Your task to perform on an android device: Open eBay Image 0: 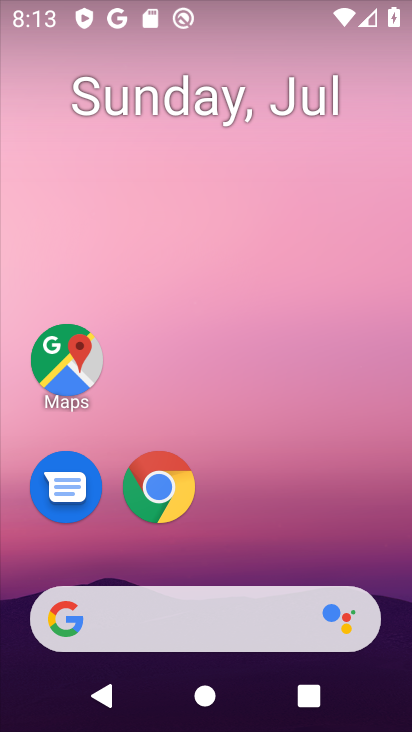
Step 0: click (176, 491)
Your task to perform on an android device: Open eBay Image 1: 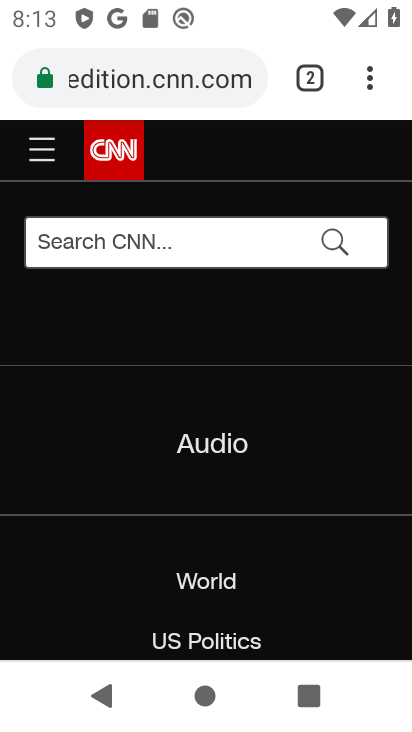
Step 1: click (299, 79)
Your task to perform on an android device: Open eBay Image 2: 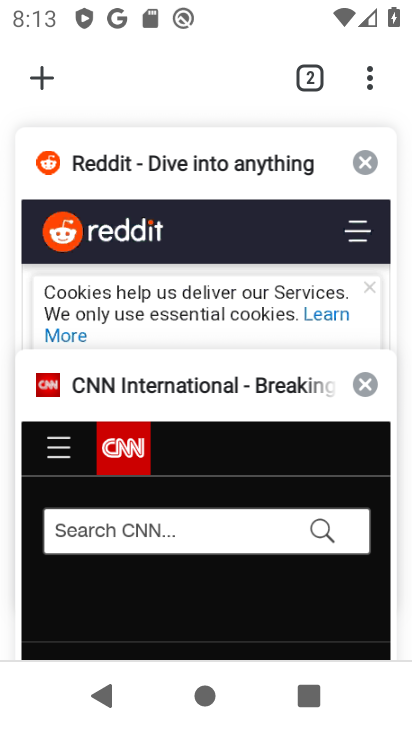
Step 2: click (51, 80)
Your task to perform on an android device: Open eBay Image 3: 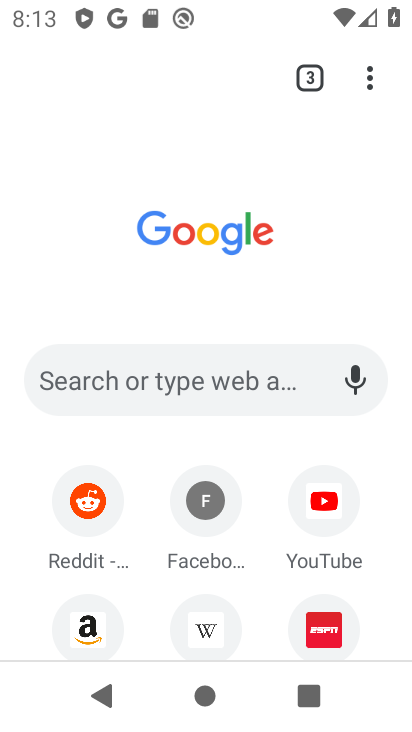
Step 3: click (211, 374)
Your task to perform on an android device: Open eBay Image 4: 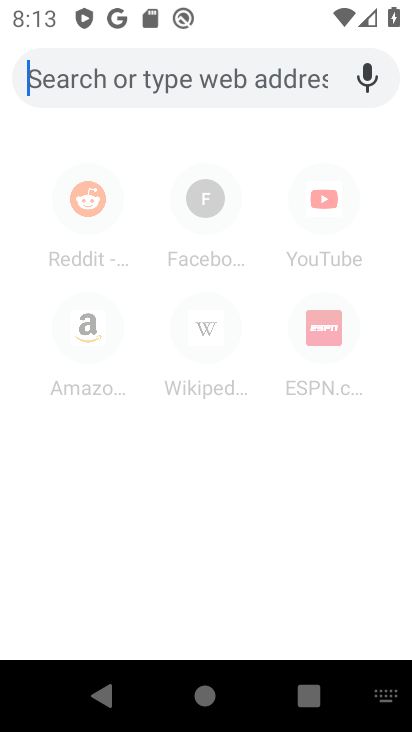
Step 4: type "ebay"
Your task to perform on an android device: Open eBay Image 5: 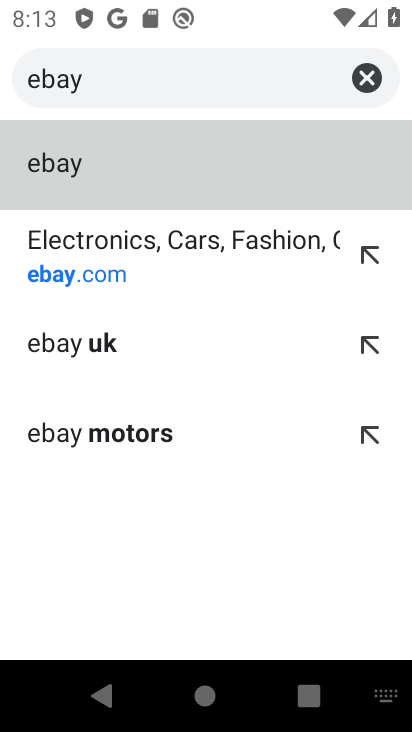
Step 5: click (193, 256)
Your task to perform on an android device: Open eBay Image 6: 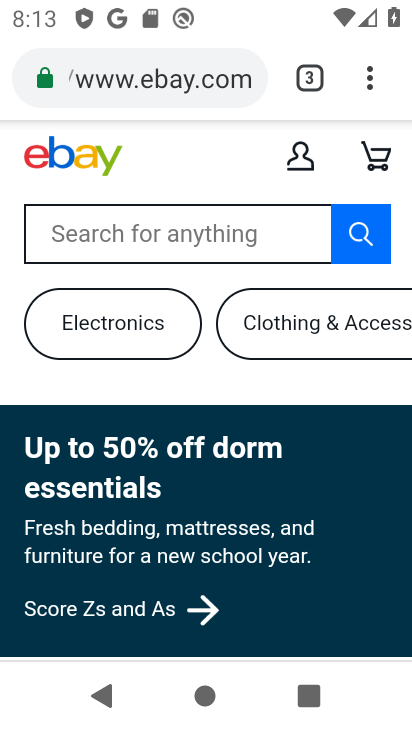
Step 6: task complete